Your task to perform on an android device: Open Chrome and go to the settings page Image 0: 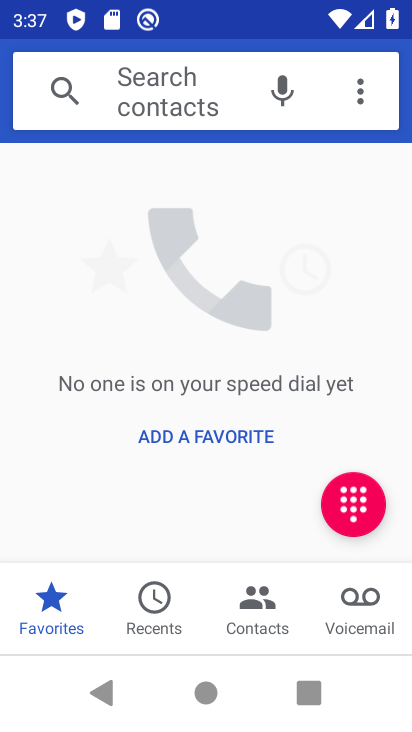
Step 0: press home button
Your task to perform on an android device: Open Chrome and go to the settings page Image 1: 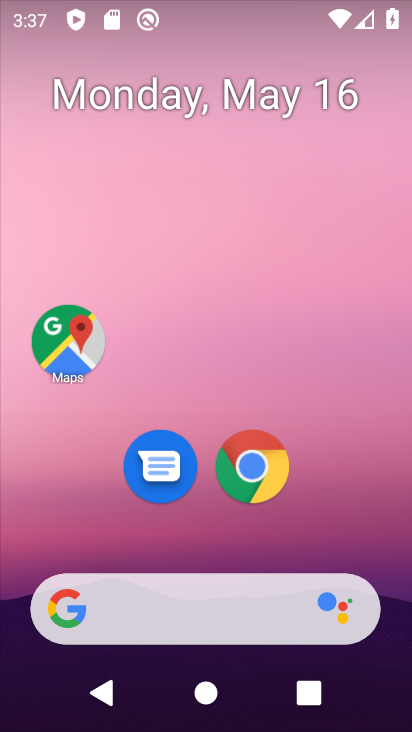
Step 1: drag from (251, 636) to (304, 165)
Your task to perform on an android device: Open Chrome and go to the settings page Image 2: 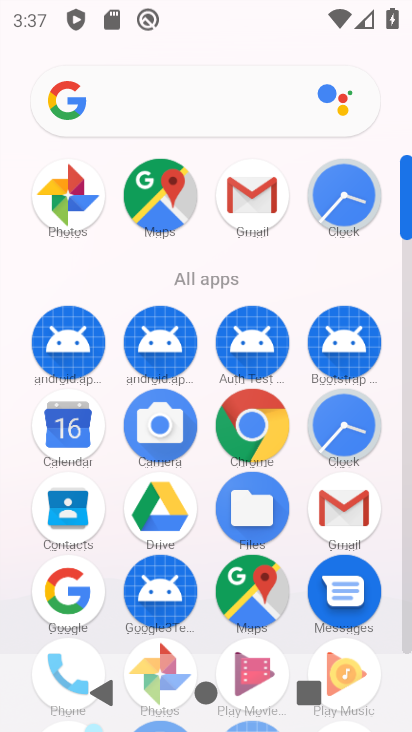
Step 2: click (275, 437)
Your task to perform on an android device: Open Chrome and go to the settings page Image 3: 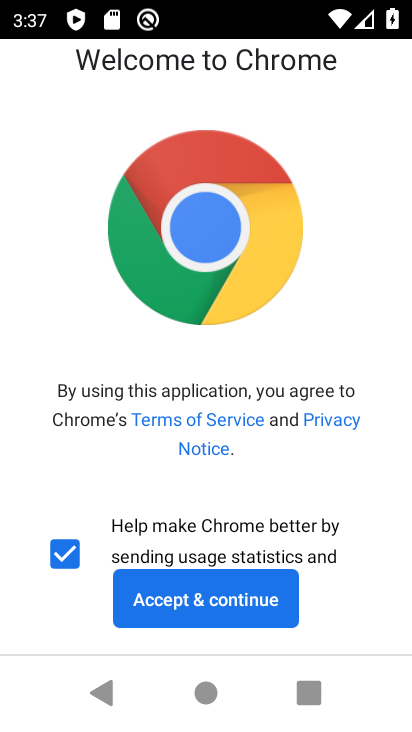
Step 3: click (206, 583)
Your task to perform on an android device: Open Chrome and go to the settings page Image 4: 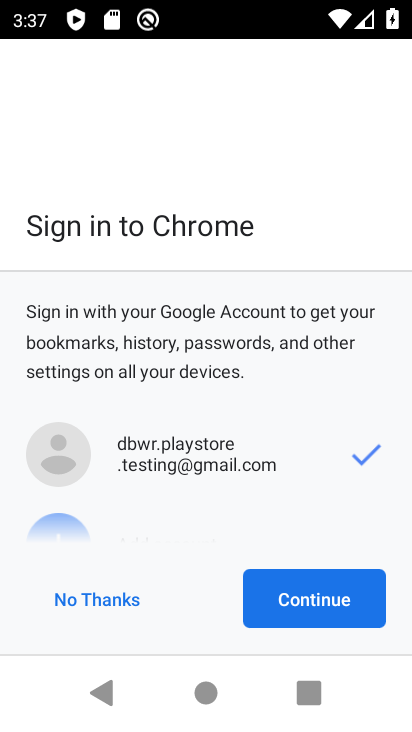
Step 4: click (282, 617)
Your task to perform on an android device: Open Chrome and go to the settings page Image 5: 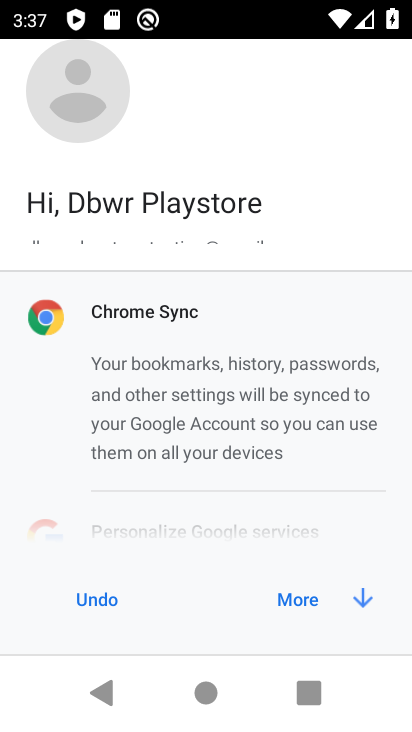
Step 5: click (359, 613)
Your task to perform on an android device: Open Chrome and go to the settings page Image 6: 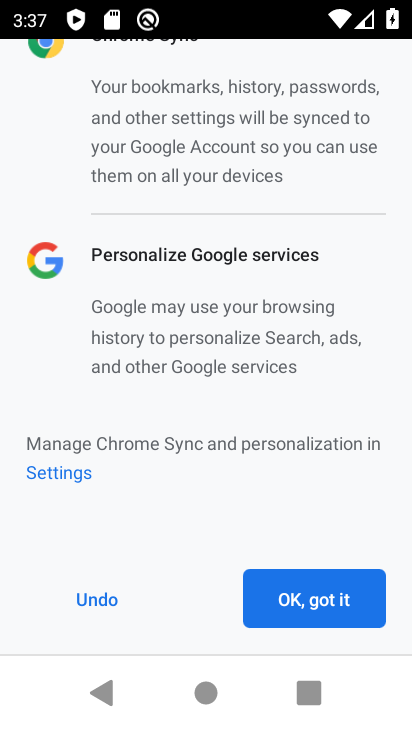
Step 6: click (303, 592)
Your task to perform on an android device: Open Chrome and go to the settings page Image 7: 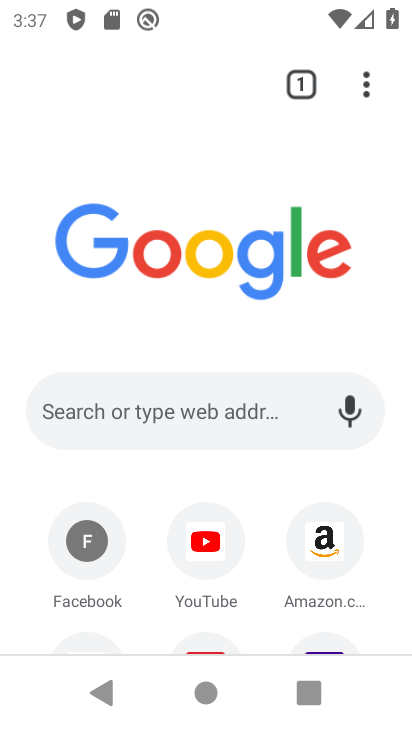
Step 7: click (357, 110)
Your task to perform on an android device: Open Chrome and go to the settings page Image 8: 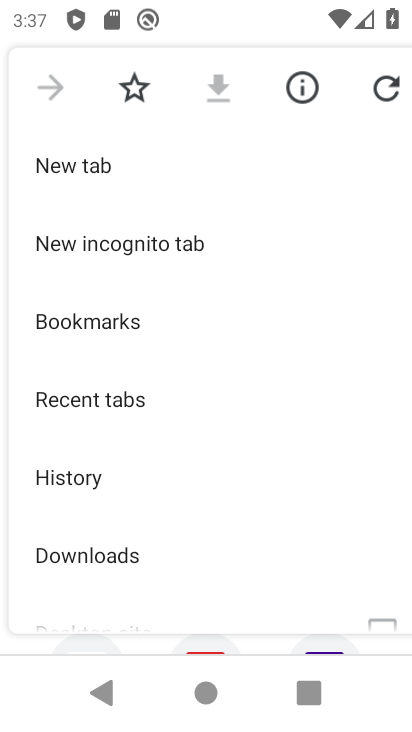
Step 8: drag from (142, 538) to (287, 264)
Your task to perform on an android device: Open Chrome and go to the settings page Image 9: 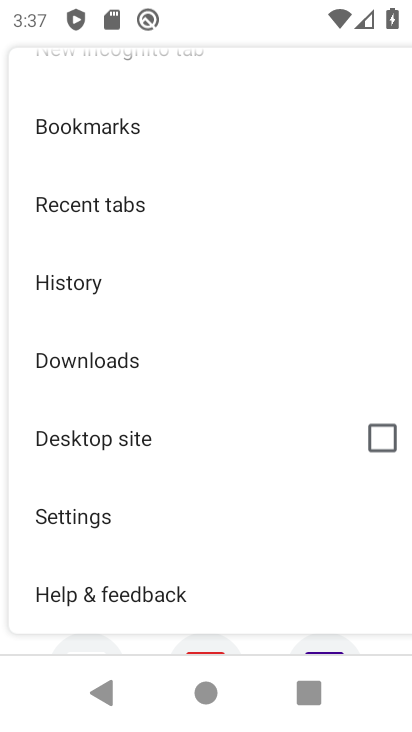
Step 9: click (102, 505)
Your task to perform on an android device: Open Chrome and go to the settings page Image 10: 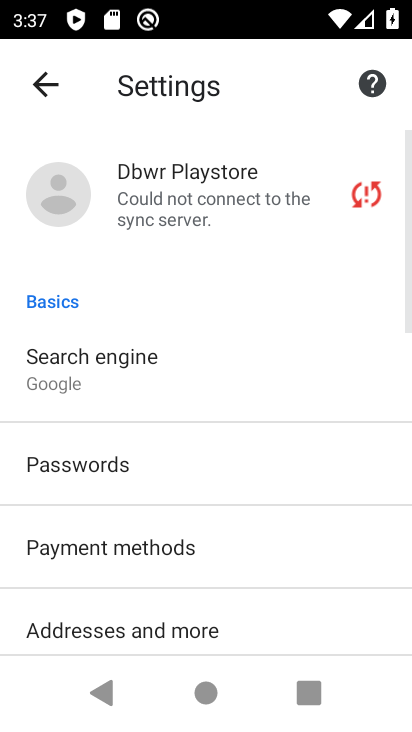
Step 10: task complete